Your task to perform on an android device: What's the weather going to be this weekend? Image 0: 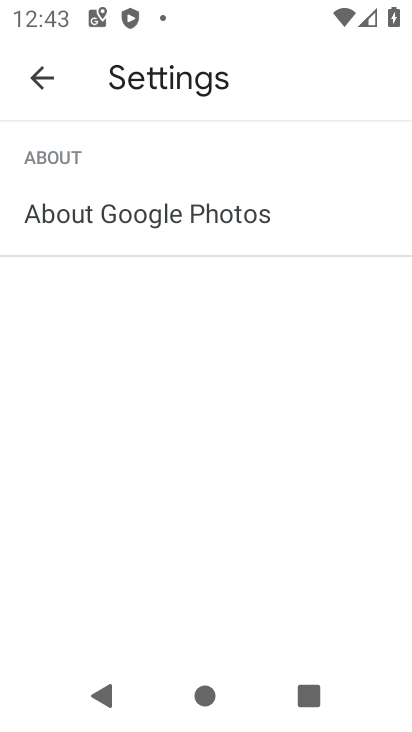
Step 0: press home button
Your task to perform on an android device: What's the weather going to be this weekend? Image 1: 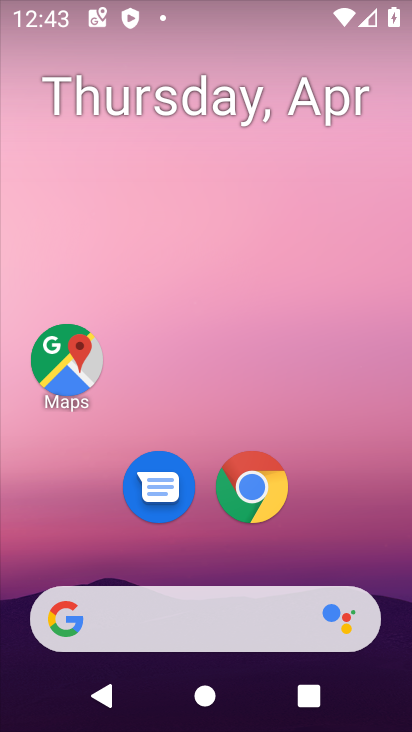
Step 1: drag from (375, 531) to (325, 91)
Your task to perform on an android device: What's the weather going to be this weekend? Image 2: 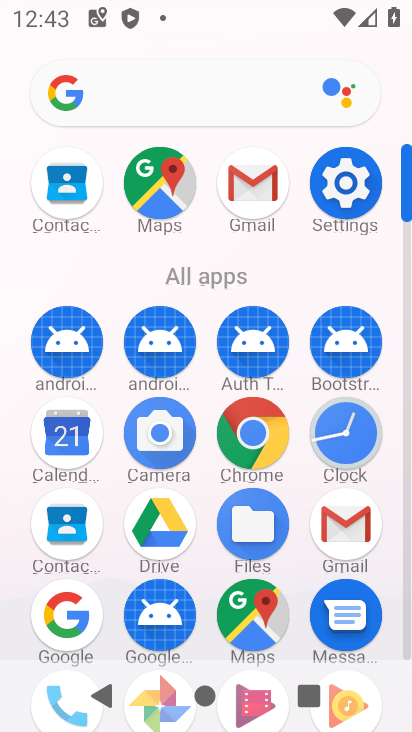
Step 2: click (130, 97)
Your task to perform on an android device: What's the weather going to be this weekend? Image 3: 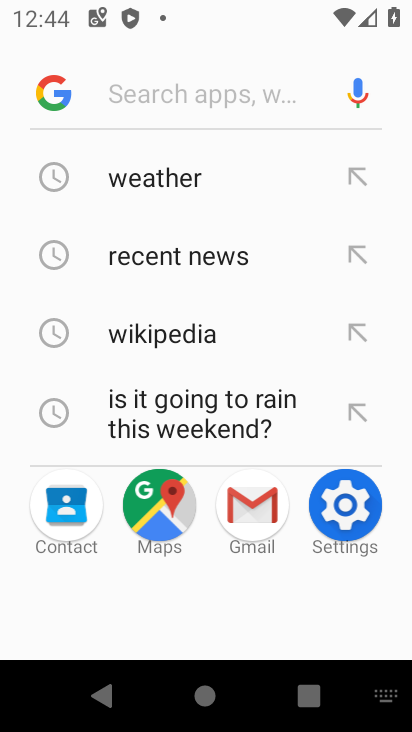
Step 3: type "what's the weather going to be this weekend"
Your task to perform on an android device: What's the weather going to be this weekend? Image 4: 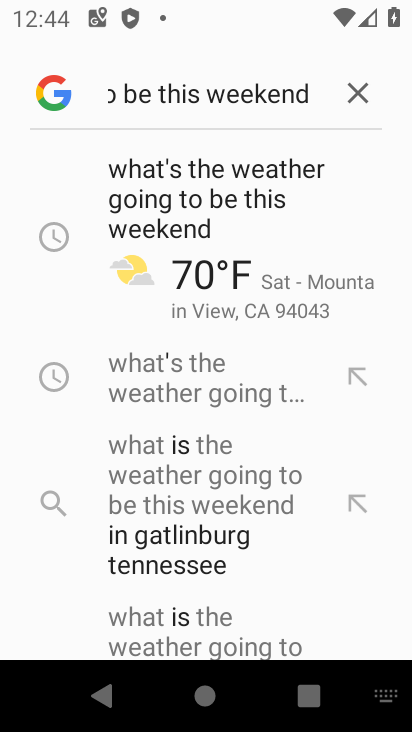
Step 4: click (178, 193)
Your task to perform on an android device: What's the weather going to be this weekend? Image 5: 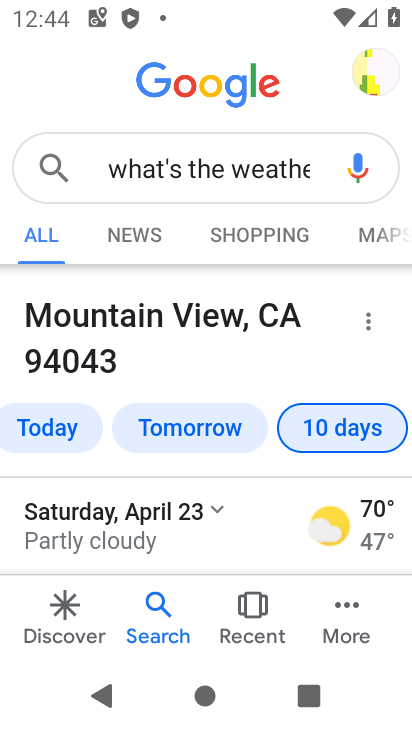
Step 5: task complete